Your task to perform on an android device: Go to sound settings Image 0: 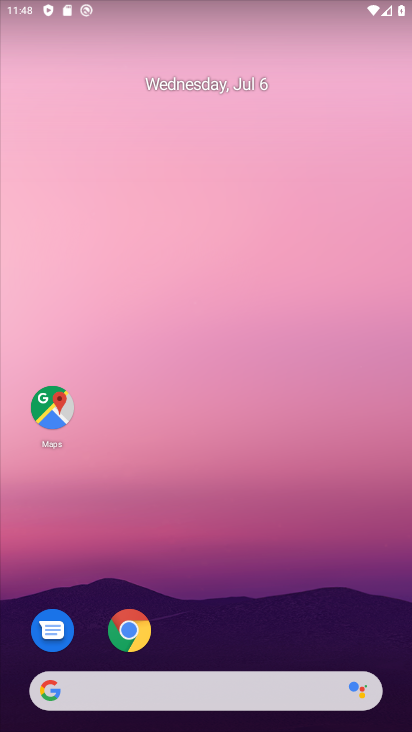
Step 0: drag from (202, 638) to (225, 1)
Your task to perform on an android device: Go to sound settings Image 1: 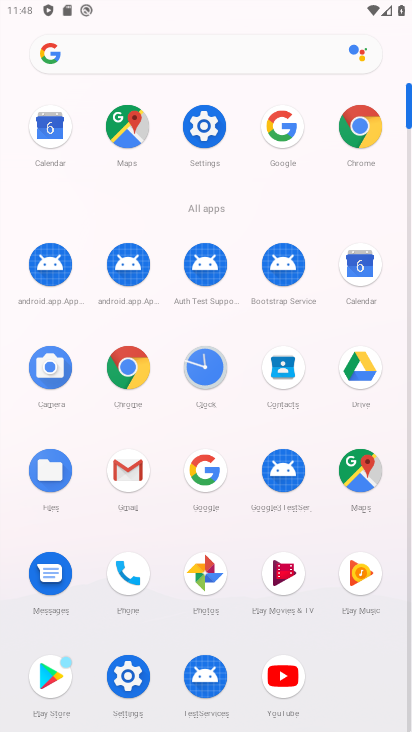
Step 1: click (202, 136)
Your task to perform on an android device: Go to sound settings Image 2: 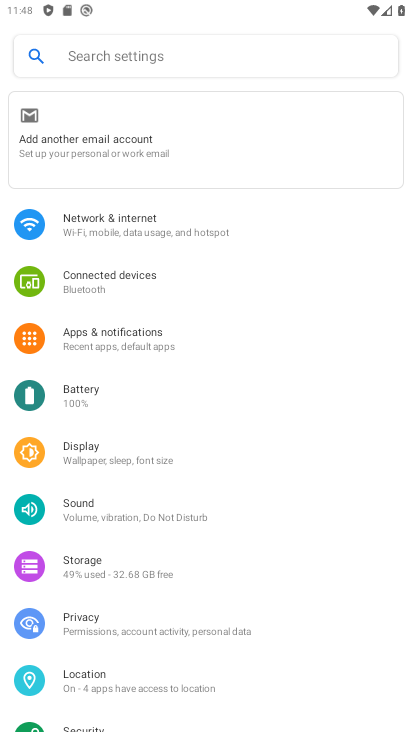
Step 2: click (94, 516)
Your task to perform on an android device: Go to sound settings Image 3: 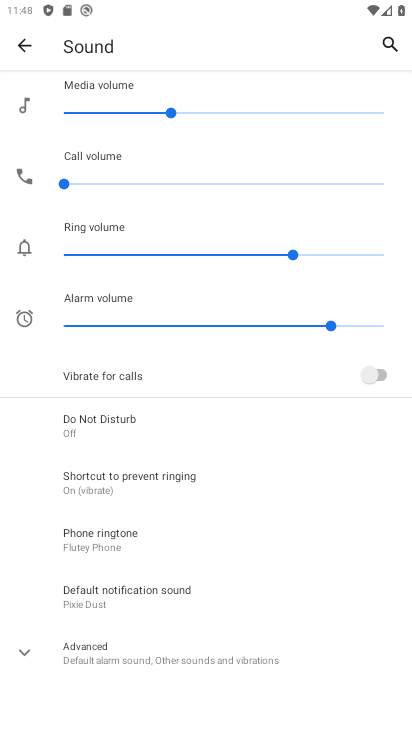
Step 3: task complete